Your task to perform on an android device: turn on the 24-hour format for clock Image 0: 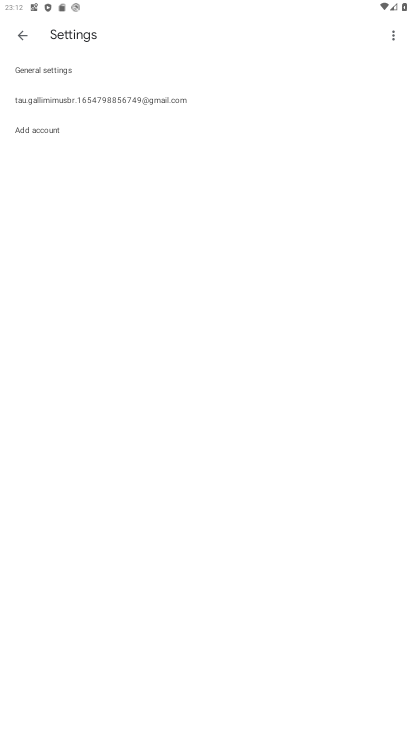
Step 0: press home button
Your task to perform on an android device: turn on the 24-hour format for clock Image 1: 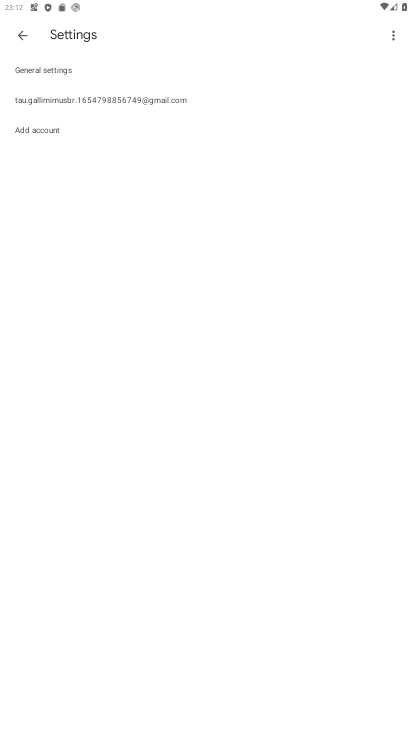
Step 1: press home button
Your task to perform on an android device: turn on the 24-hour format for clock Image 2: 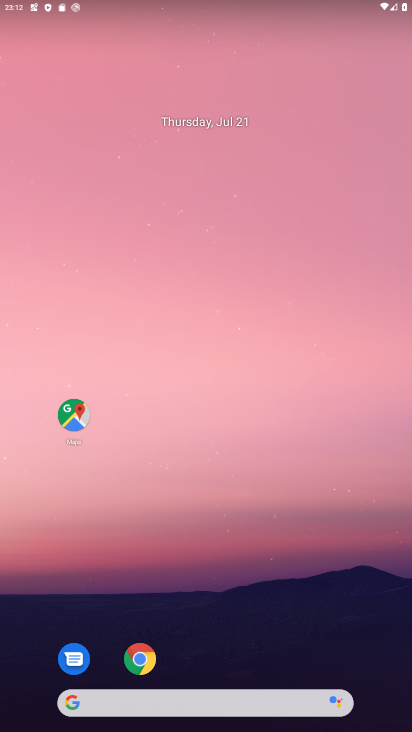
Step 2: drag from (274, 618) to (308, 210)
Your task to perform on an android device: turn on the 24-hour format for clock Image 3: 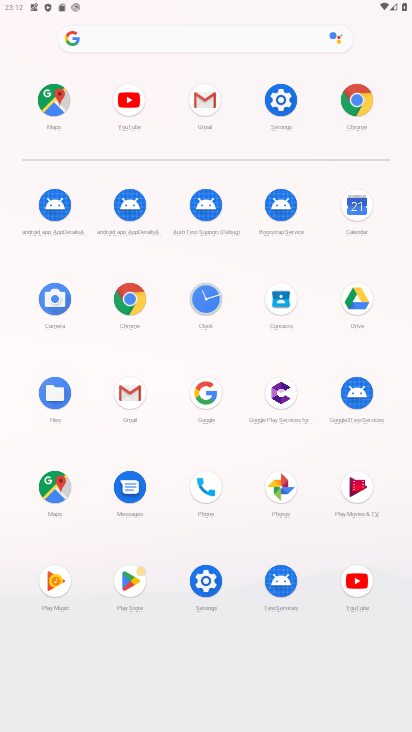
Step 3: click (204, 304)
Your task to perform on an android device: turn on the 24-hour format for clock Image 4: 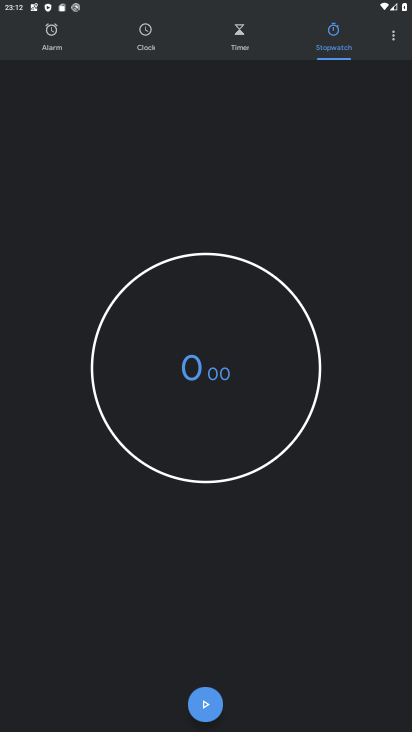
Step 4: click (398, 40)
Your task to perform on an android device: turn on the 24-hour format for clock Image 5: 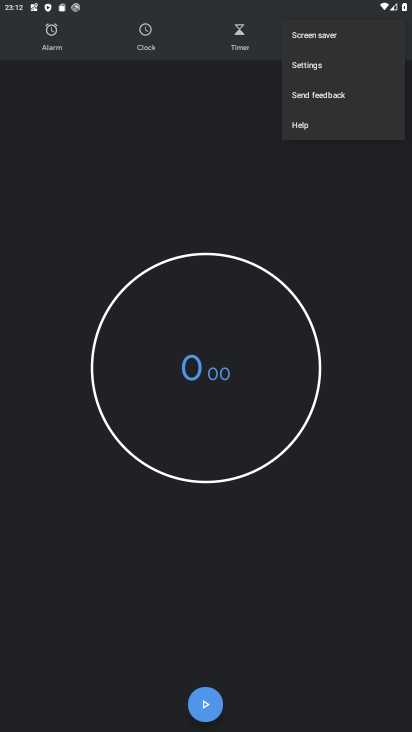
Step 5: click (346, 68)
Your task to perform on an android device: turn on the 24-hour format for clock Image 6: 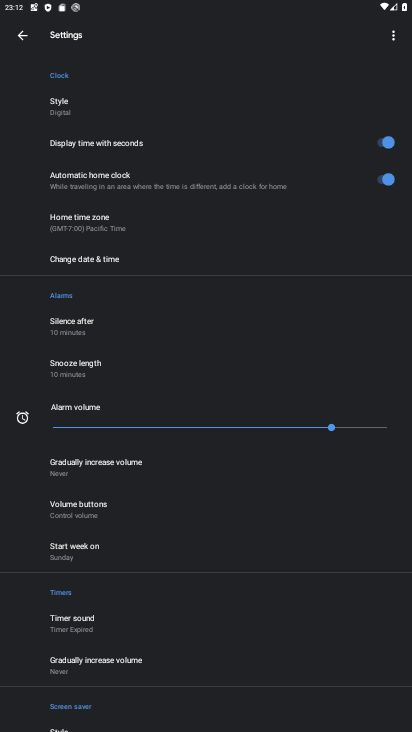
Step 6: click (137, 259)
Your task to perform on an android device: turn on the 24-hour format for clock Image 7: 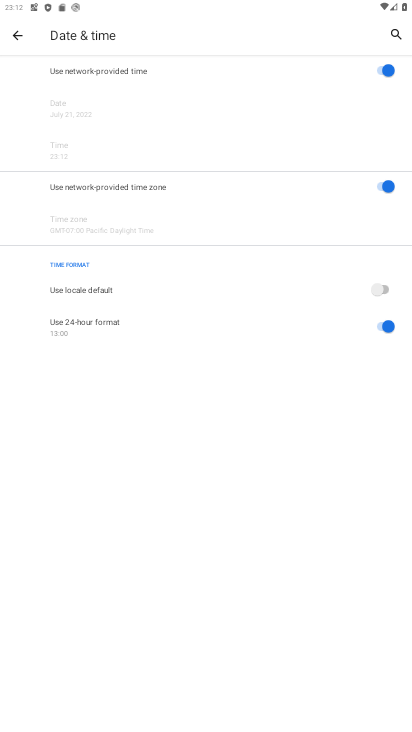
Step 7: task complete